Your task to perform on an android device: See recent photos Image 0: 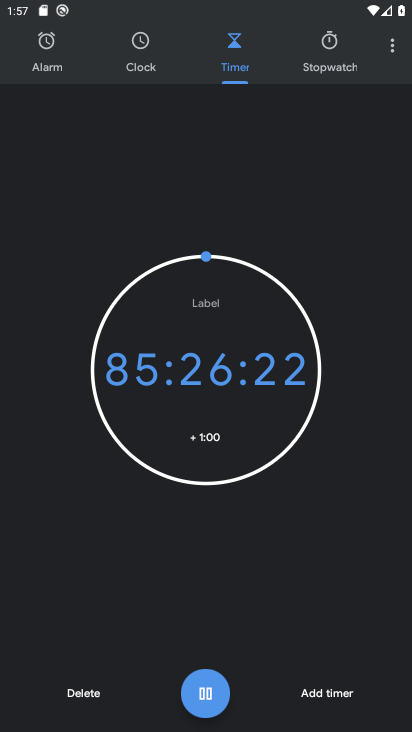
Step 0: press back button
Your task to perform on an android device: See recent photos Image 1: 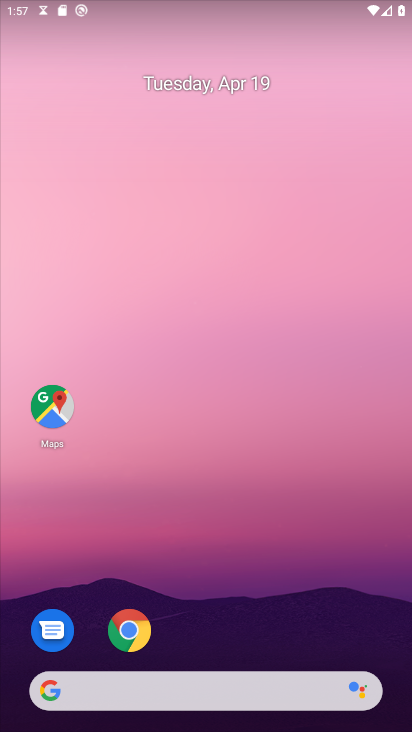
Step 1: drag from (219, 611) to (250, 57)
Your task to perform on an android device: See recent photos Image 2: 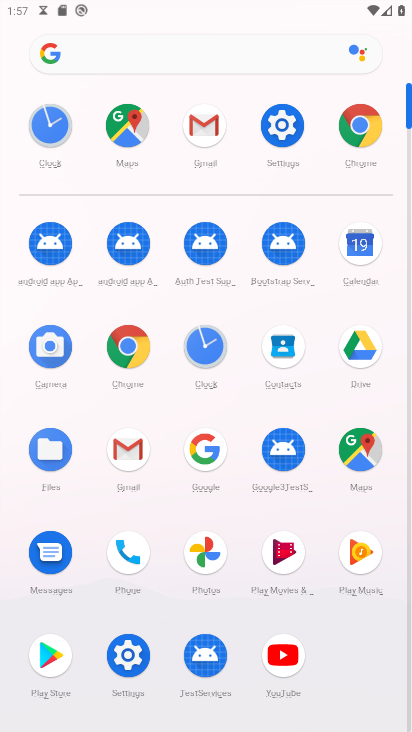
Step 2: click (210, 554)
Your task to perform on an android device: See recent photos Image 3: 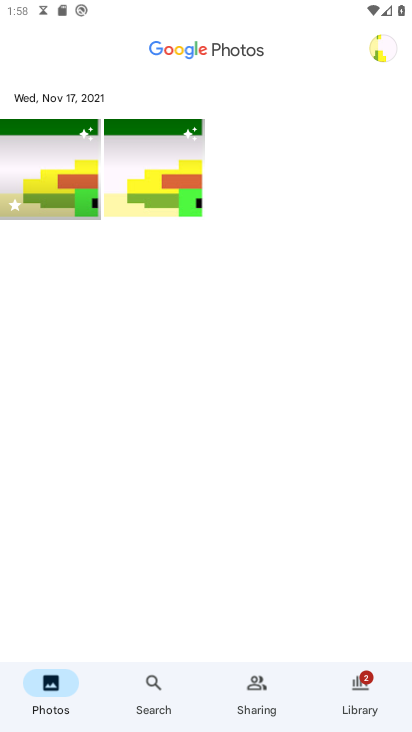
Step 3: task complete